Your task to perform on an android device: change alarm snooze length Image 0: 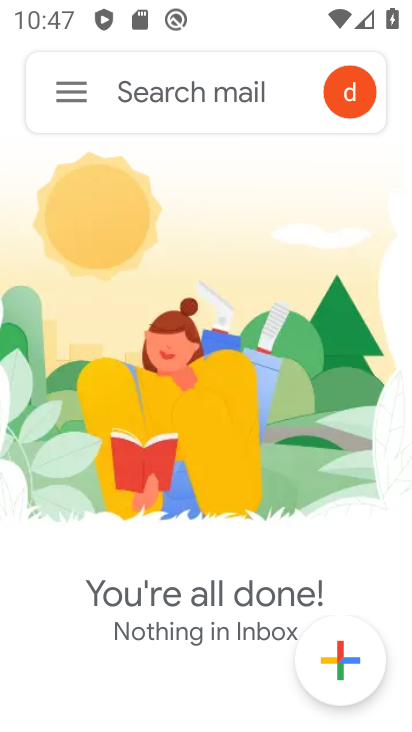
Step 0: press home button
Your task to perform on an android device: change alarm snooze length Image 1: 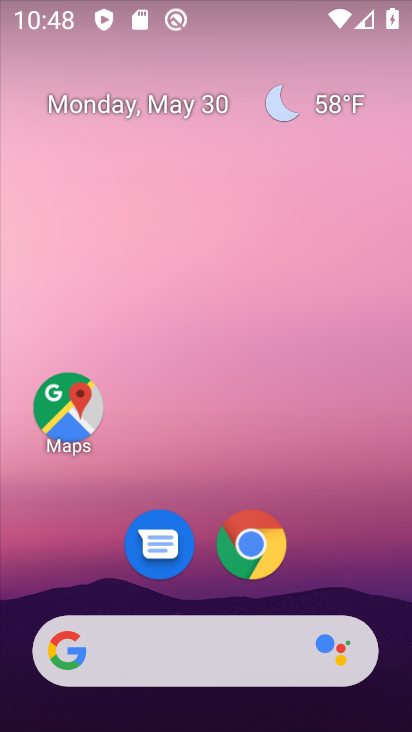
Step 1: drag from (365, 576) to (287, 14)
Your task to perform on an android device: change alarm snooze length Image 2: 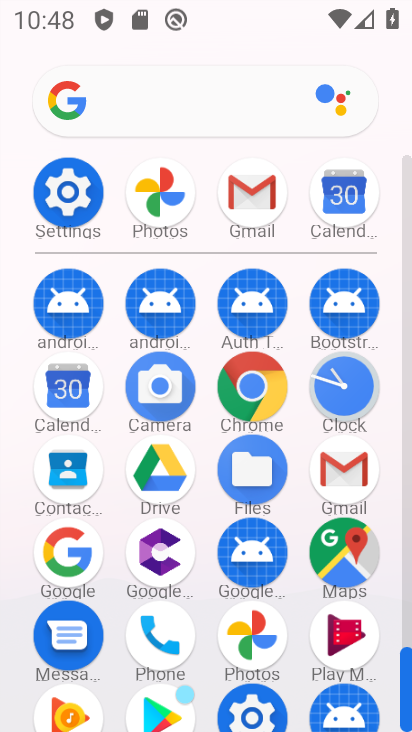
Step 2: click (334, 371)
Your task to perform on an android device: change alarm snooze length Image 3: 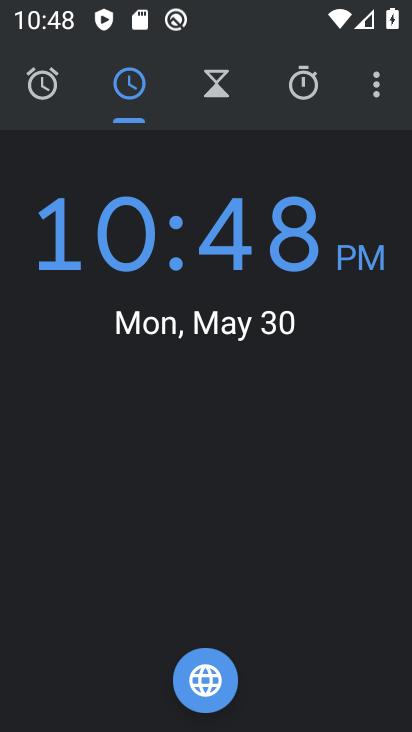
Step 3: click (385, 87)
Your task to perform on an android device: change alarm snooze length Image 4: 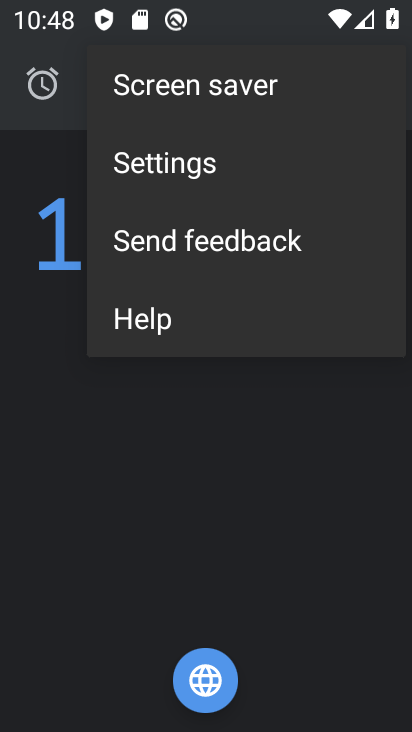
Step 4: click (214, 184)
Your task to perform on an android device: change alarm snooze length Image 5: 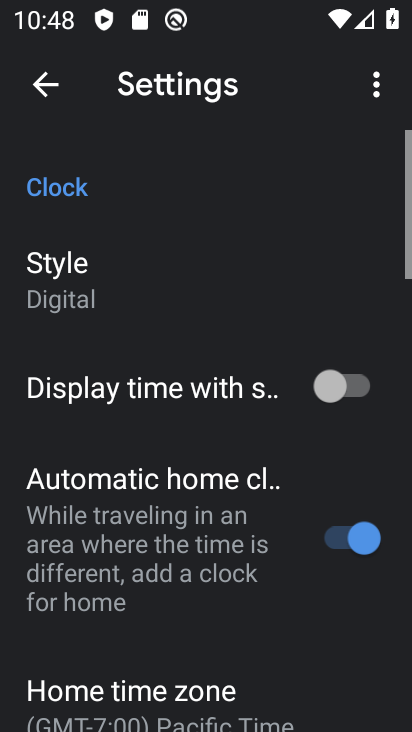
Step 5: task complete